Your task to perform on an android device: Go to accessibility settings Image 0: 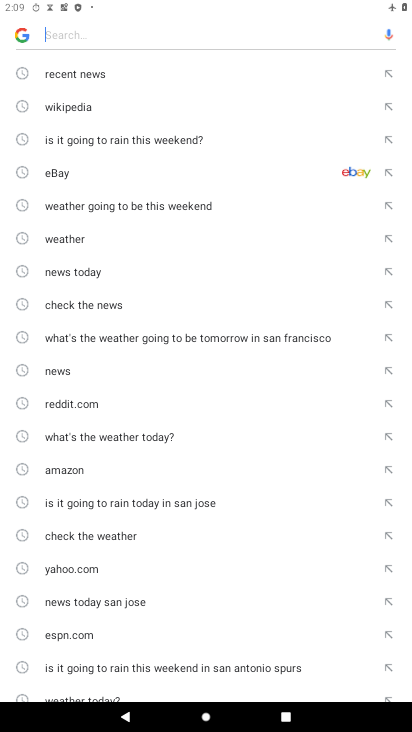
Step 0: press home button
Your task to perform on an android device: Go to accessibility settings Image 1: 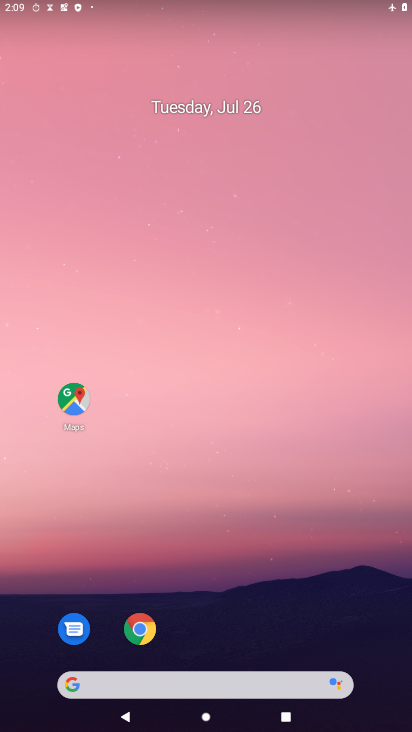
Step 1: drag from (197, 659) to (317, 22)
Your task to perform on an android device: Go to accessibility settings Image 2: 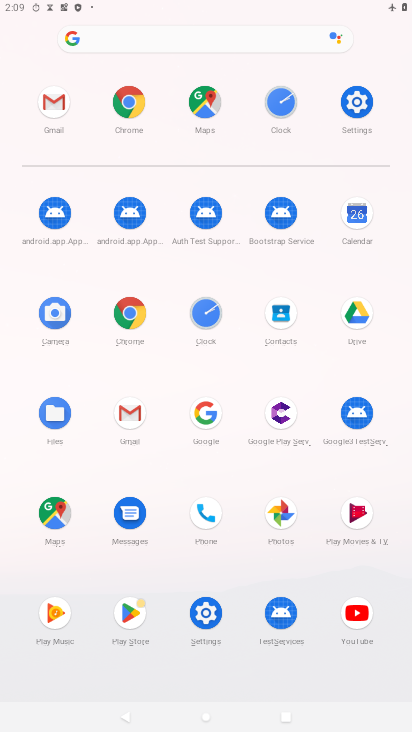
Step 2: click (360, 103)
Your task to perform on an android device: Go to accessibility settings Image 3: 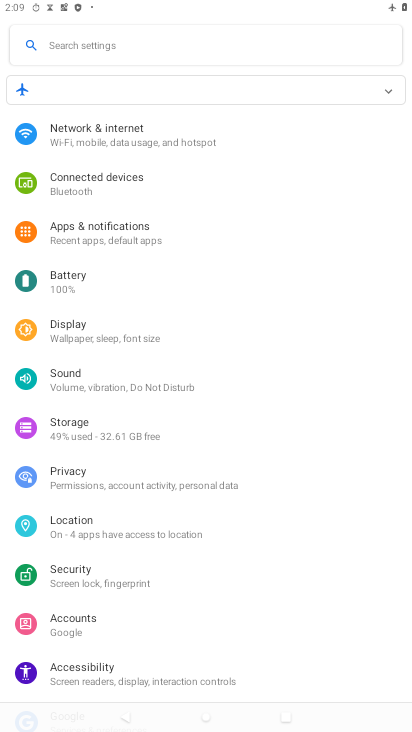
Step 3: click (94, 661)
Your task to perform on an android device: Go to accessibility settings Image 4: 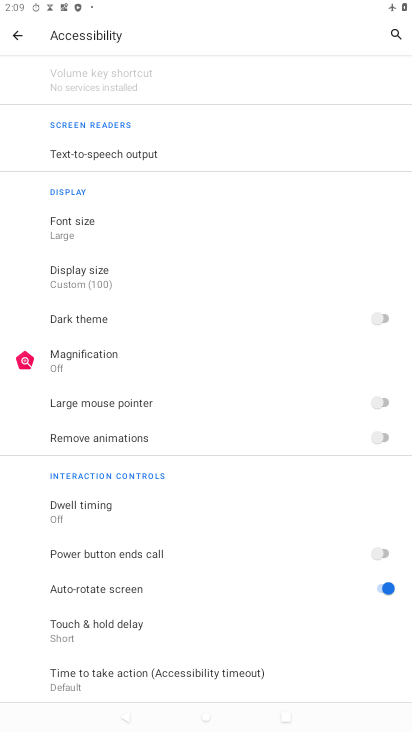
Step 4: task complete